Your task to perform on an android device: toggle wifi Image 0: 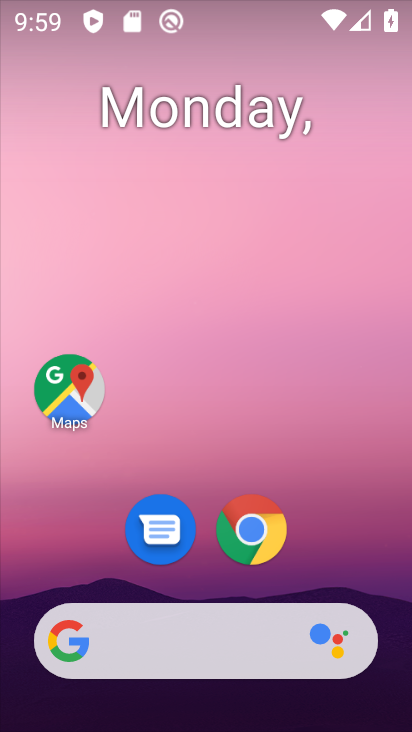
Step 0: drag from (190, 7) to (199, 363)
Your task to perform on an android device: toggle wifi Image 1: 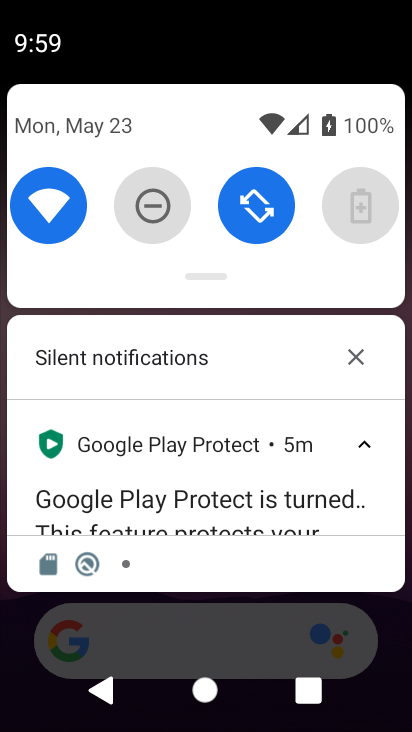
Step 1: click (48, 206)
Your task to perform on an android device: toggle wifi Image 2: 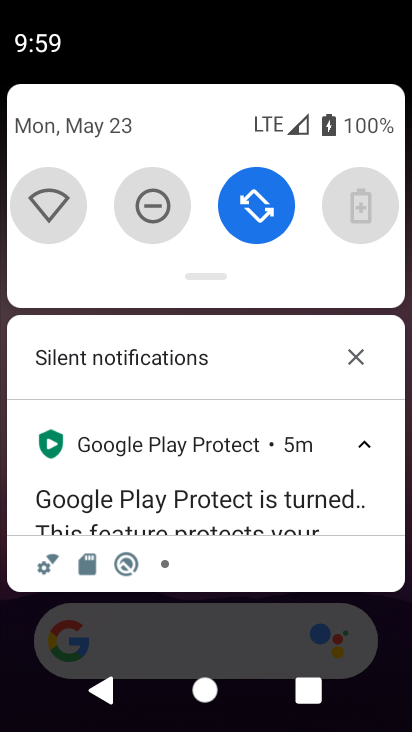
Step 2: task complete